Your task to perform on an android device: toggle airplane mode Image 0: 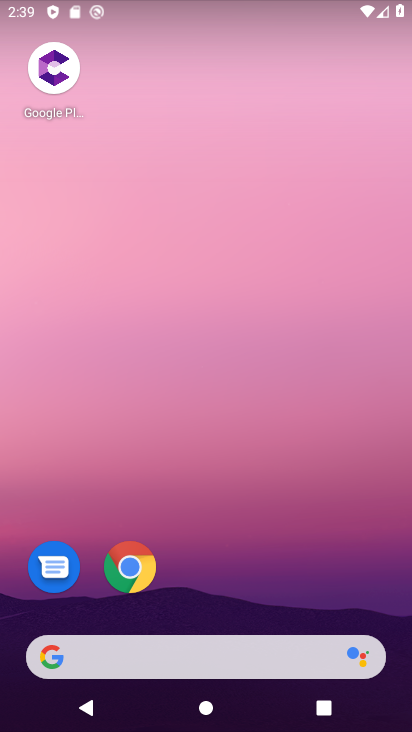
Step 0: drag from (261, 600) to (230, 16)
Your task to perform on an android device: toggle airplane mode Image 1: 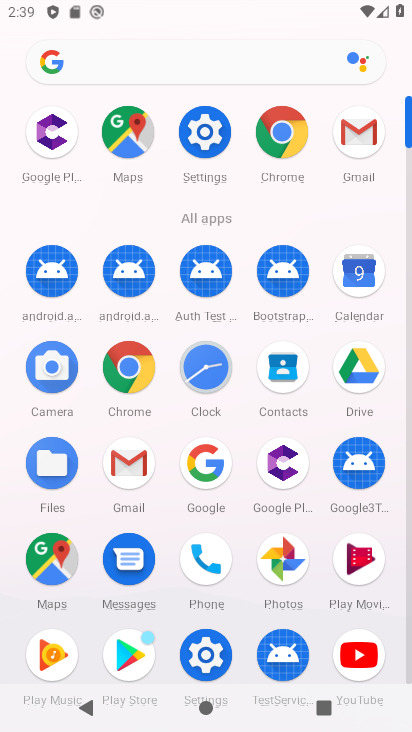
Step 1: click (213, 144)
Your task to perform on an android device: toggle airplane mode Image 2: 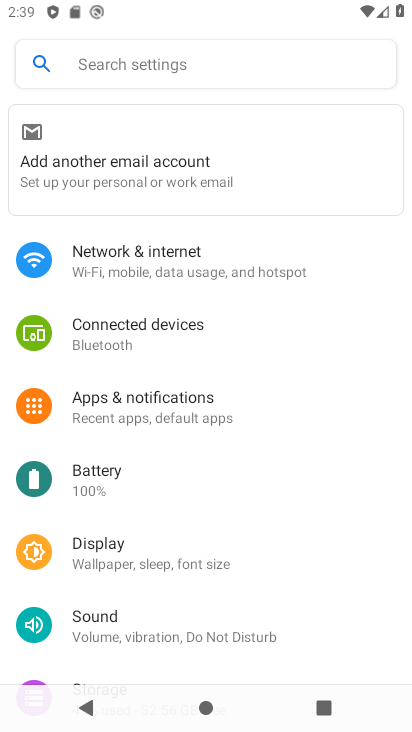
Step 2: click (192, 260)
Your task to perform on an android device: toggle airplane mode Image 3: 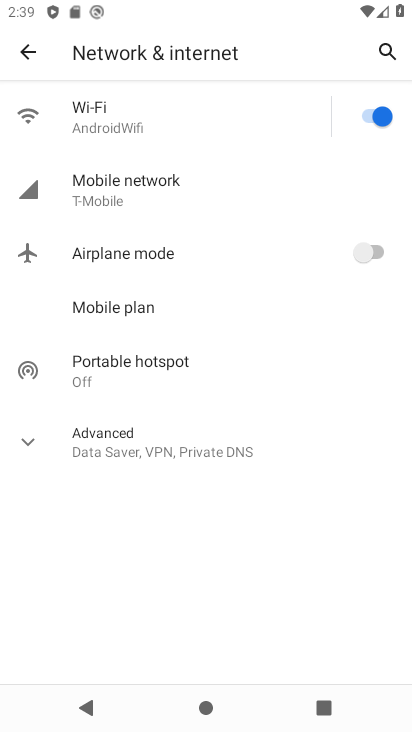
Step 3: click (379, 256)
Your task to perform on an android device: toggle airplane mode Image 4: 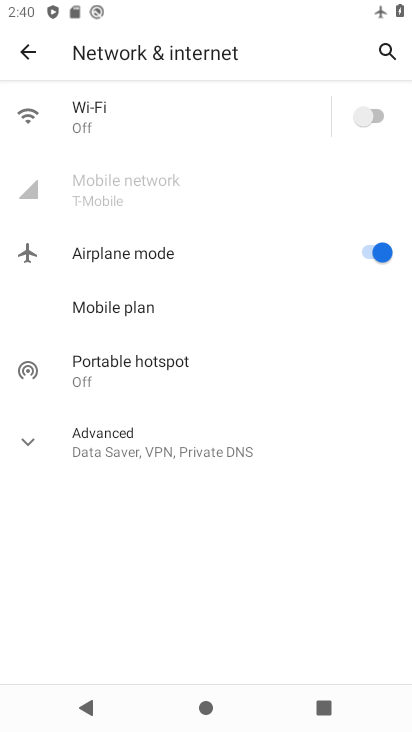
Step 4: task complete